Your task to perform on an android device: Do I have any events today? Image 0: 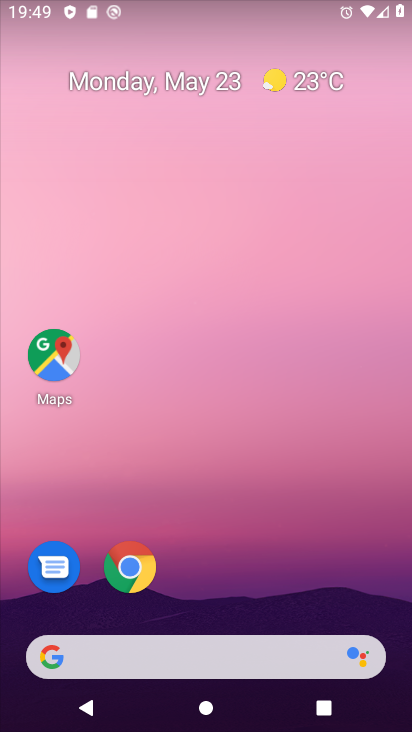
Step 0: drag from (169, 601) to (220, 313)
Your task to perform on an android device: Do I have any events today? Image 1: 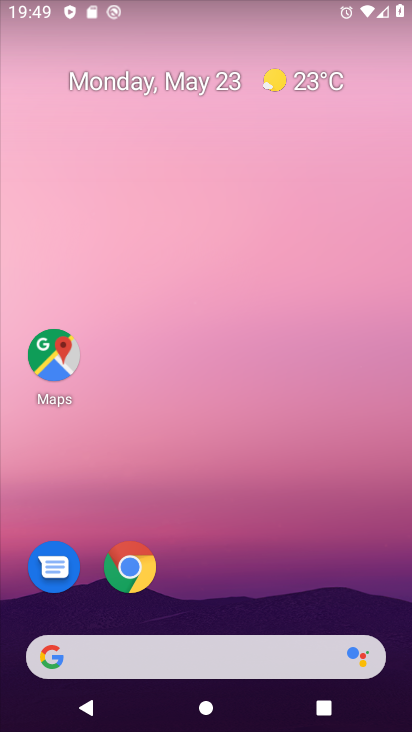
Step 1: drag from (245, 590) to (225, 232)
Your task to perform on an android device: Do I have any events today? Image 2: 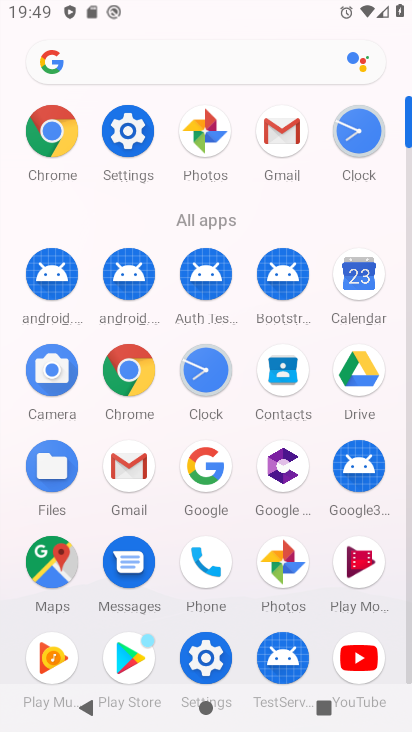
Step 2: click (357, 280)
Your task to perform on an android device: Do I have any events today? Image 3: 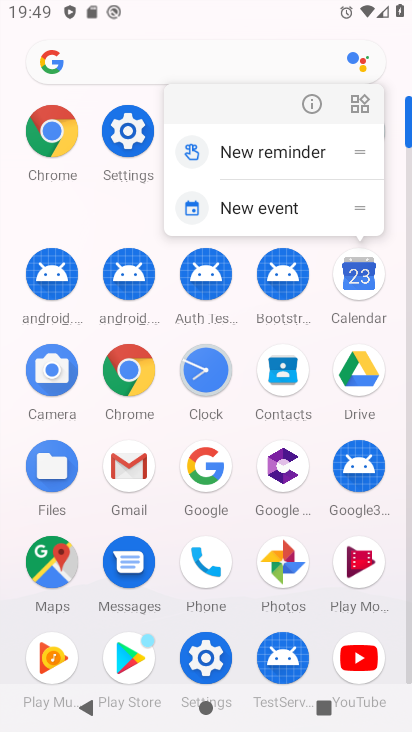
Step 3: click (345, 269)
Your task to perform on an android device: Do I have any events today? Image 4: 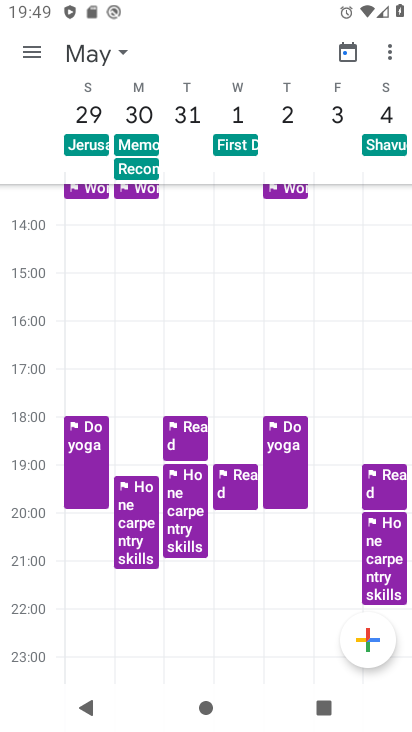
Step 4: click (39, 55)
Your task to perform on an android device: Do I have any events today? Image 5: 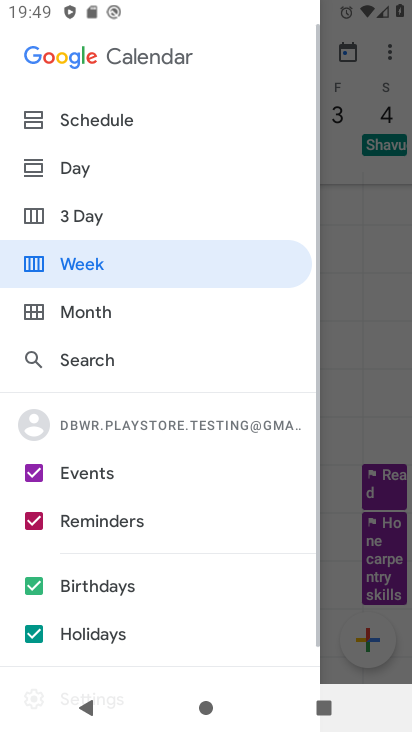
Step 5: click (105, 186)
Your task to perform on an android device: Do I have any events today? Image 6: 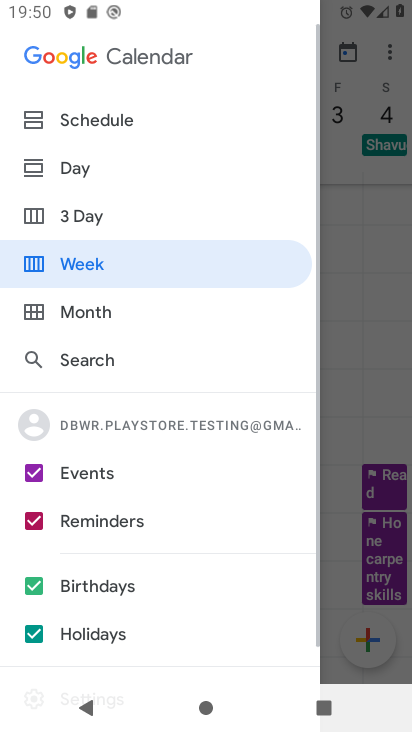
Step 6: click (70, 165)
Your task to perform on an android device: Do I have any events today? Image 7: 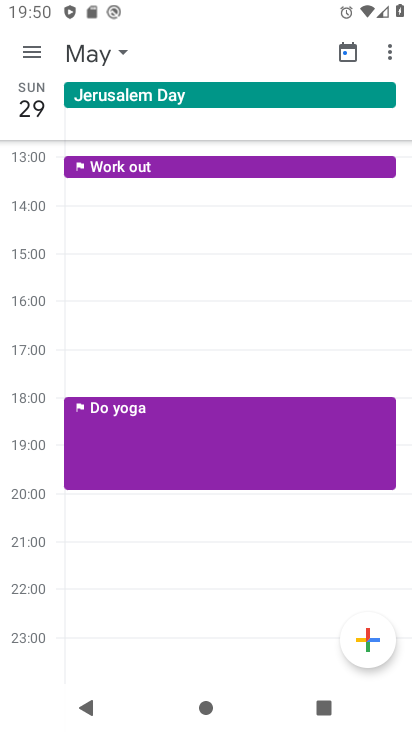
Step 7: click (29, 55)
Your task to perform on an android device: Do I have any events today? Image 8: 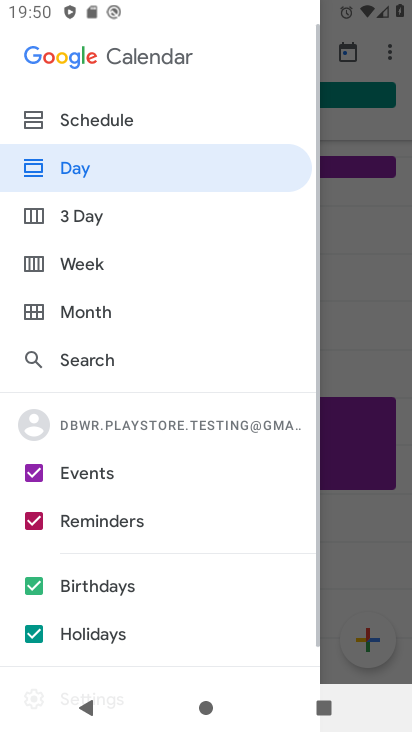
Step 8: click (91, 325)
Your task to perform on an android device: Do I have any events today? Image 9: 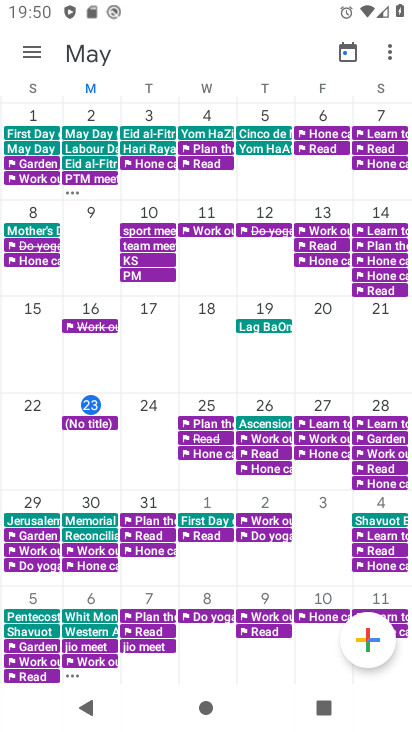
Step 9: click (149, 404)
Your task to perform on an android device: Do I have any events today? Image 10: 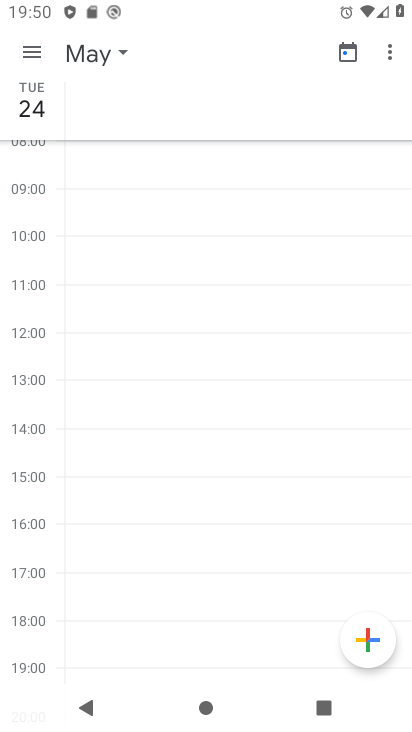
Step 10: click (29, 41)
Your task to perform on an android device: Do I have any events today? Image 11: 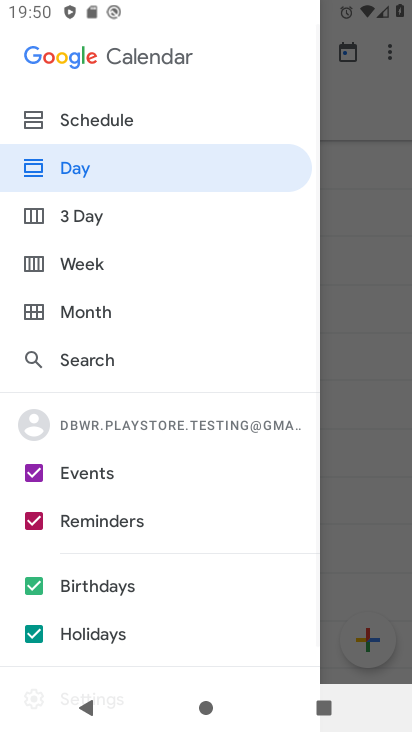
Step 11: click (360, 342)
Your task to perform on an android device: Do I have any events today? Image 12: 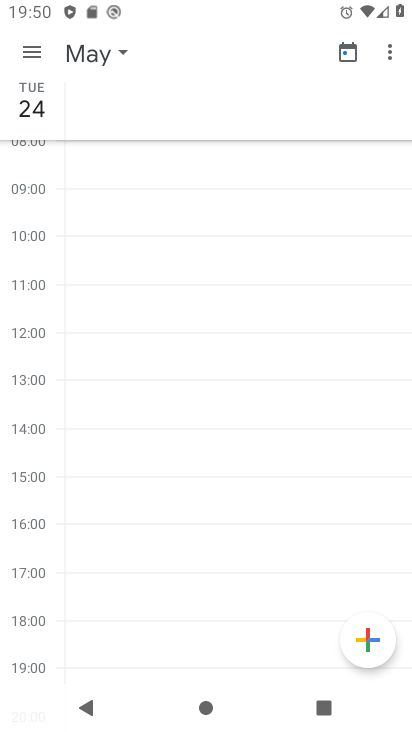
Step 12: task complete